Your task to perform on an android device: Check the news Image 0: 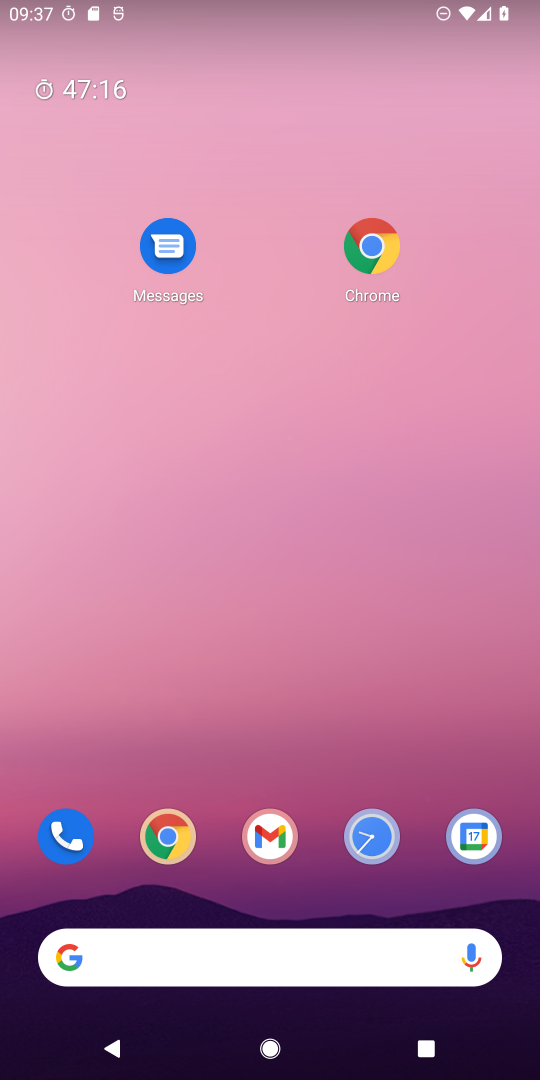
Step 0: click (173, 840)
Your task to perform on an android device: Check the news Image 1: 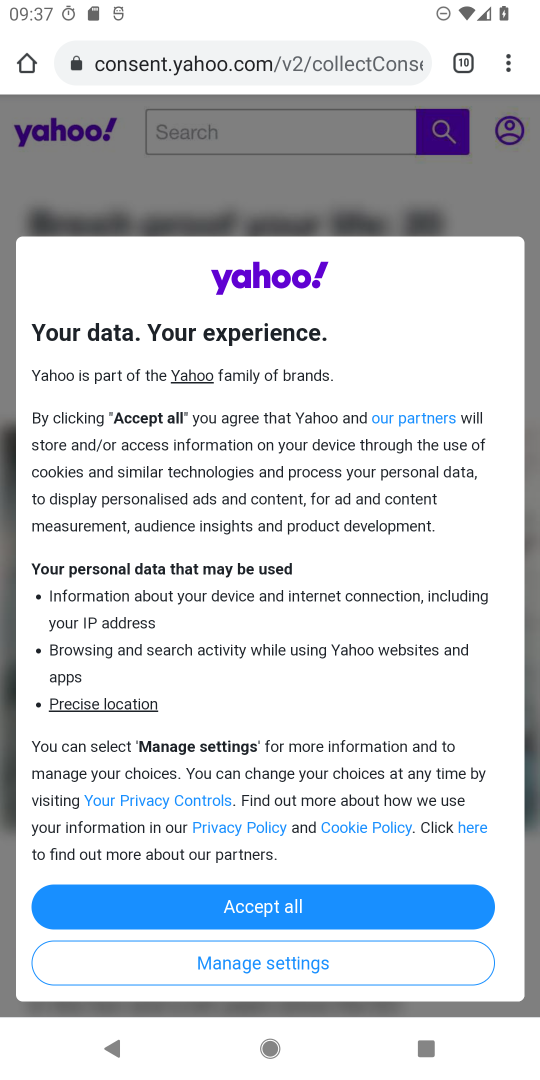
Step 1: click (514, 62)
Your task to perform on an android device: Check the news Image 2: 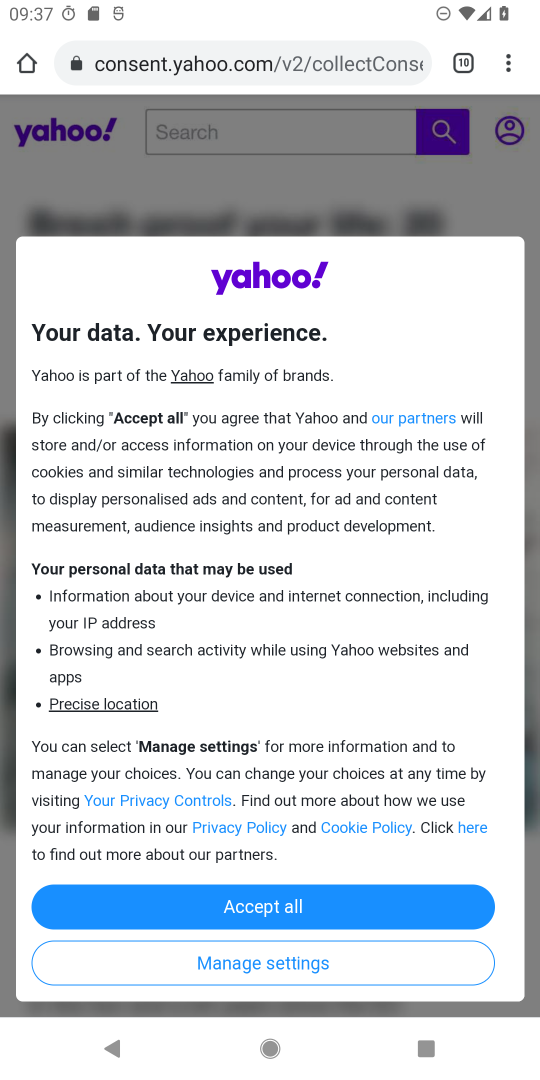
Step 2: click (496, 75)
Your task to perform on an android device: Check the news Image 3: 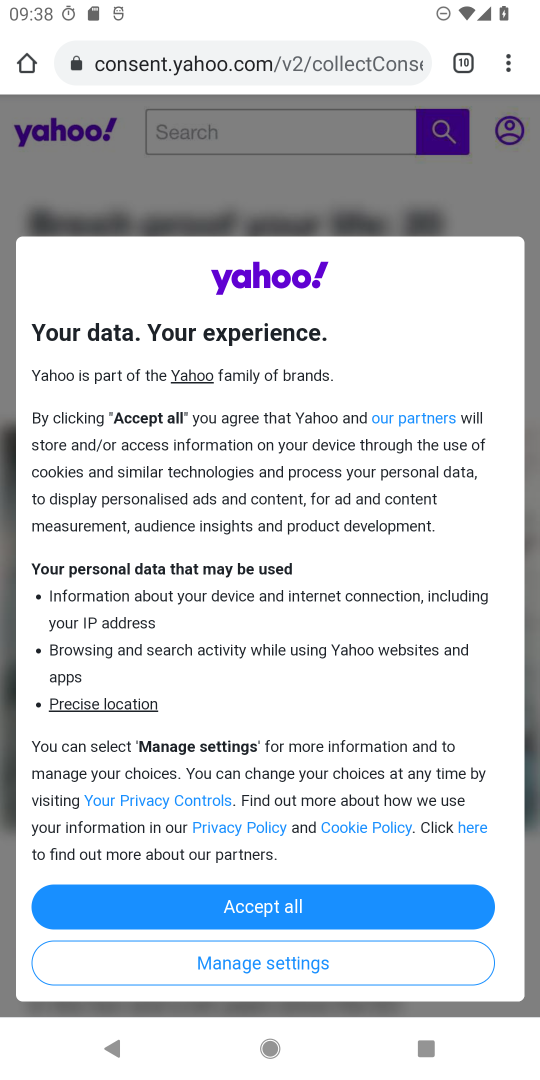
Step 3: click (514, 67)
Your task to perform on an android device: Check the news Image 4: 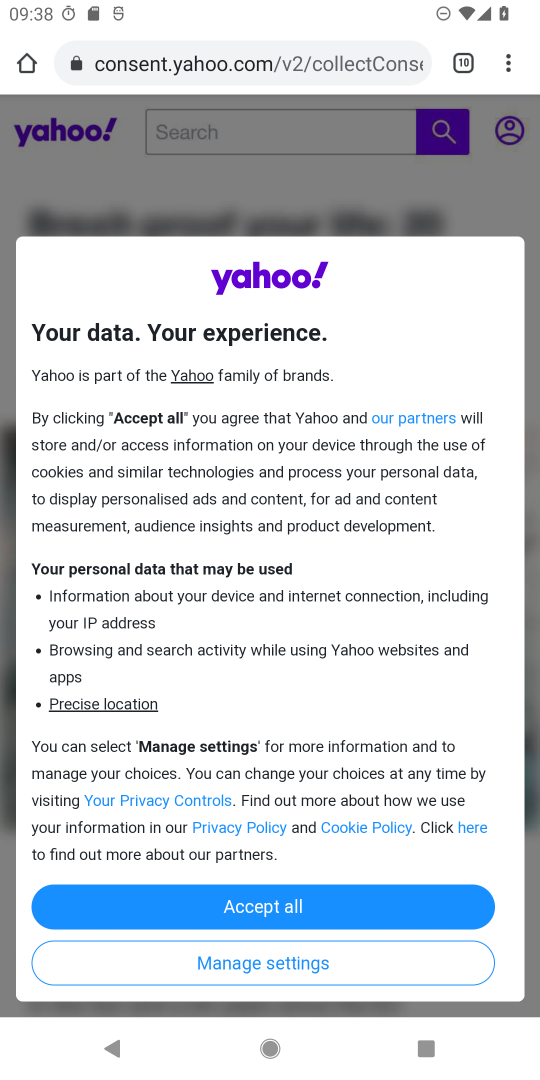
Step 4: click (514, 67)
Your task to perform on an android device: Check the news Image 5: 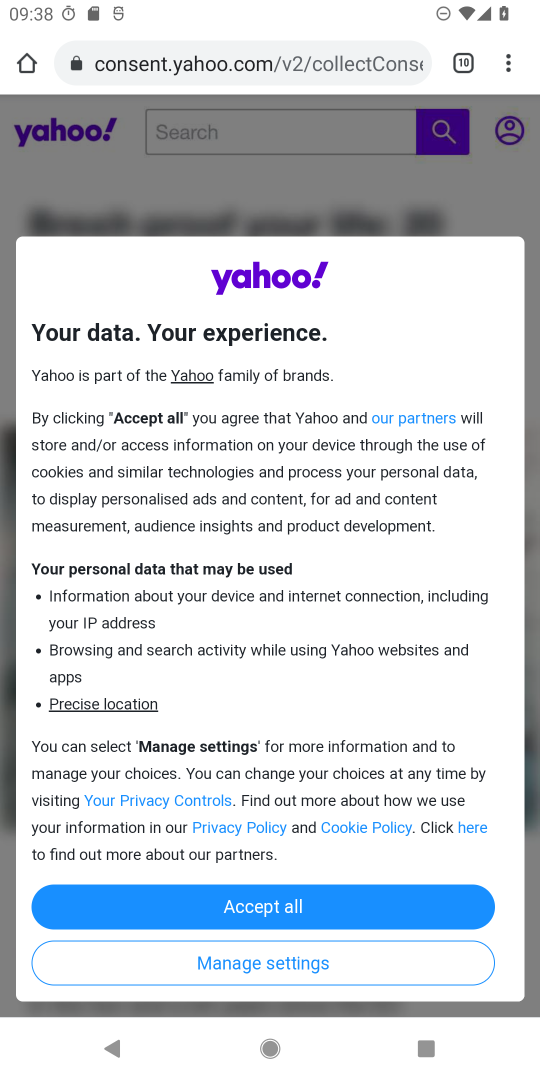
Step 5: click (498, 57)
Your task to perform on an android device: Check the news Image 6: 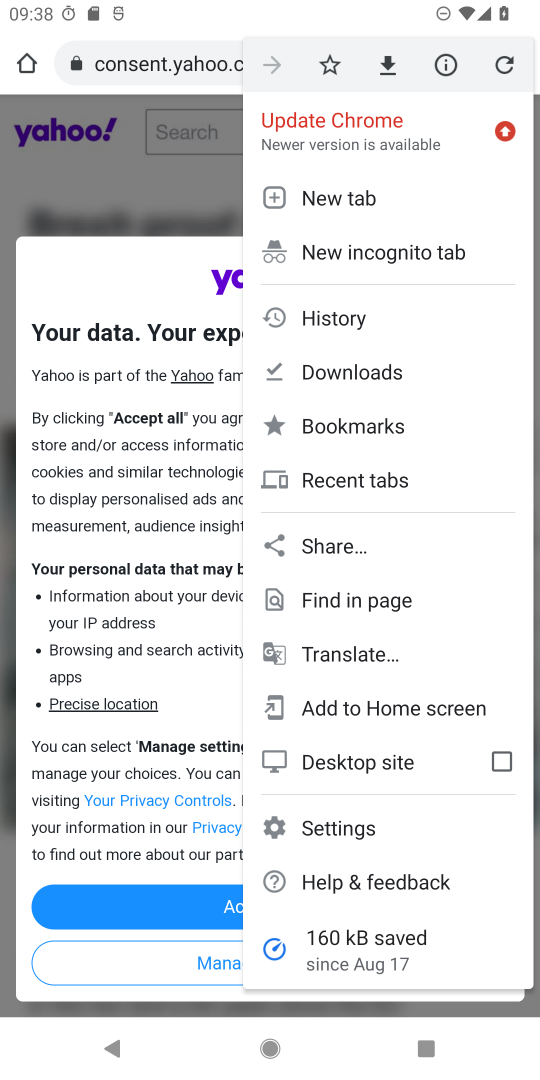
Step 6: click (337, 183)
Your task to perform on an android device: Check the news Image 7: 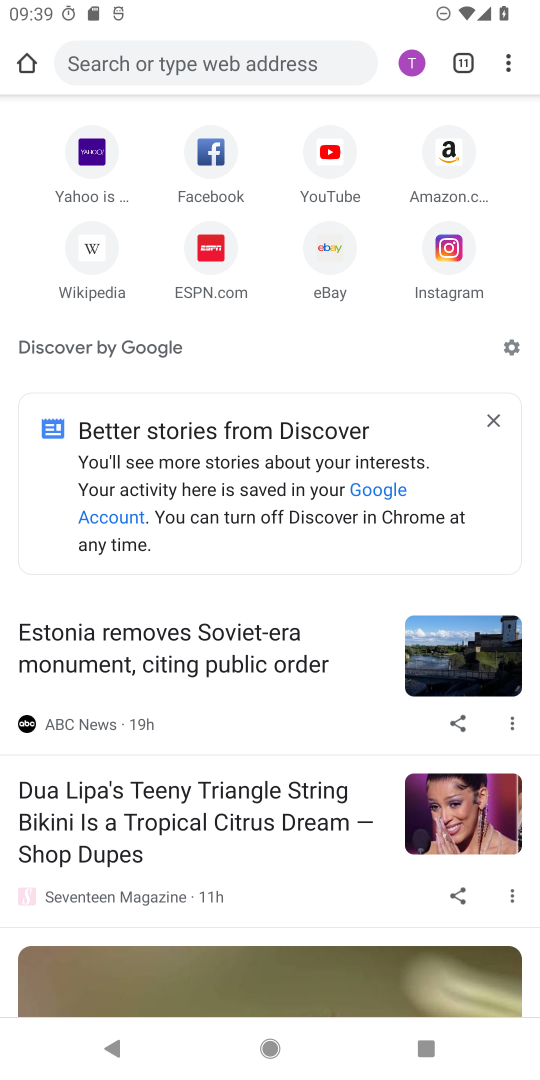
Step 7: click (201, 54)
Your task to perform on an android device: Check the news Image 8: 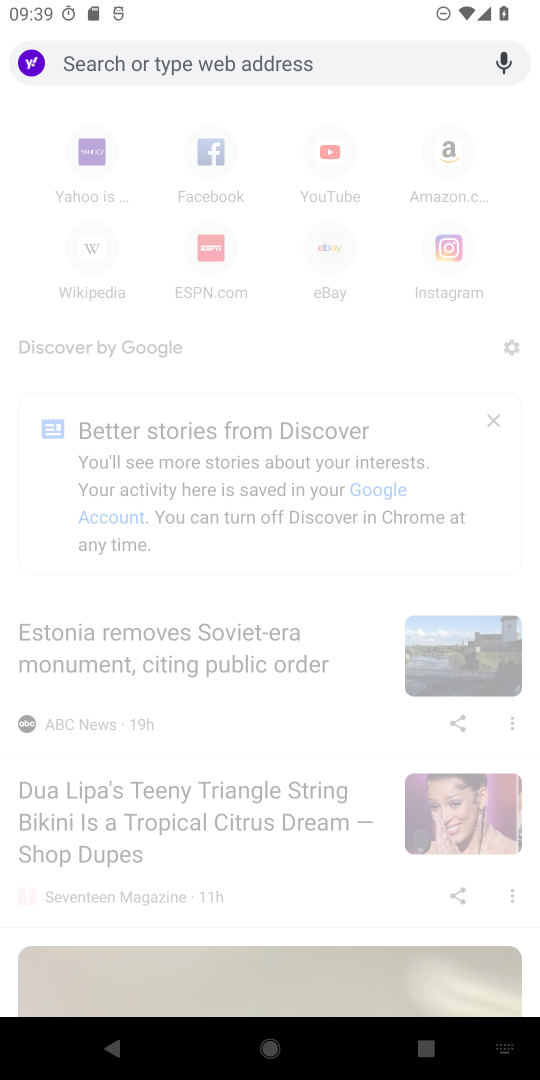
Step 8: type "Check the news "
Your task to perform on an android device: Check the news Image 9: 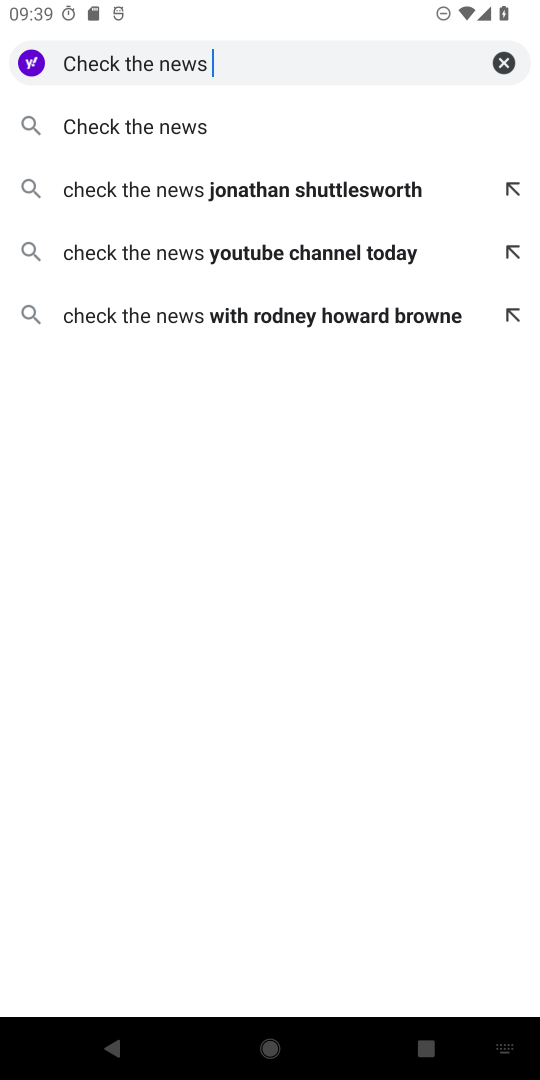
Step 9: click (107, 138)
Your task to perform on an android device: Check the news Image 10: 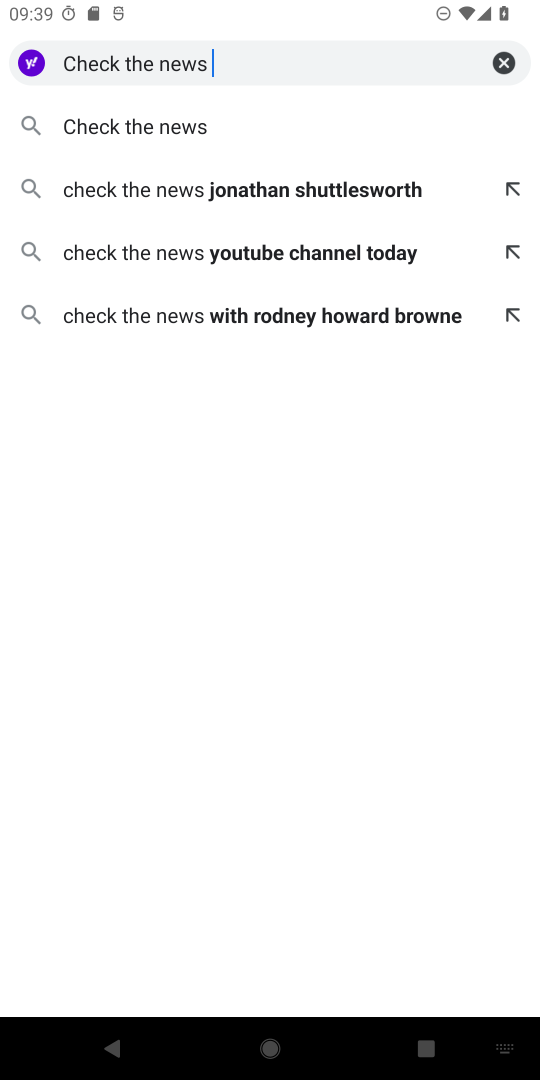
Step 10: click (106, 117)
Your task to perform on an android device: Check the news Image 11: 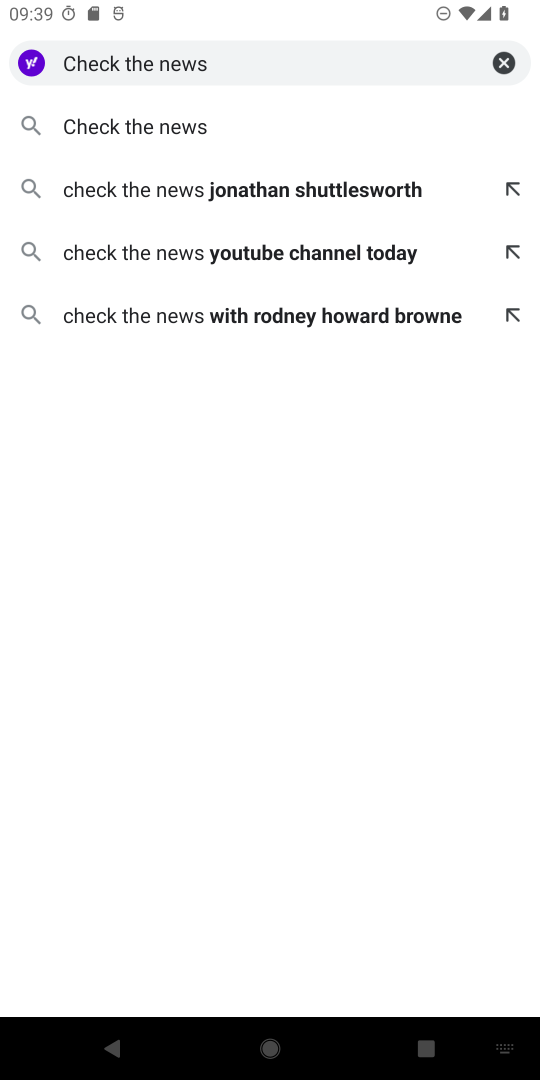
Step 11: click (106, 117)
Your task to perform on an android device: Check the news Image 12: 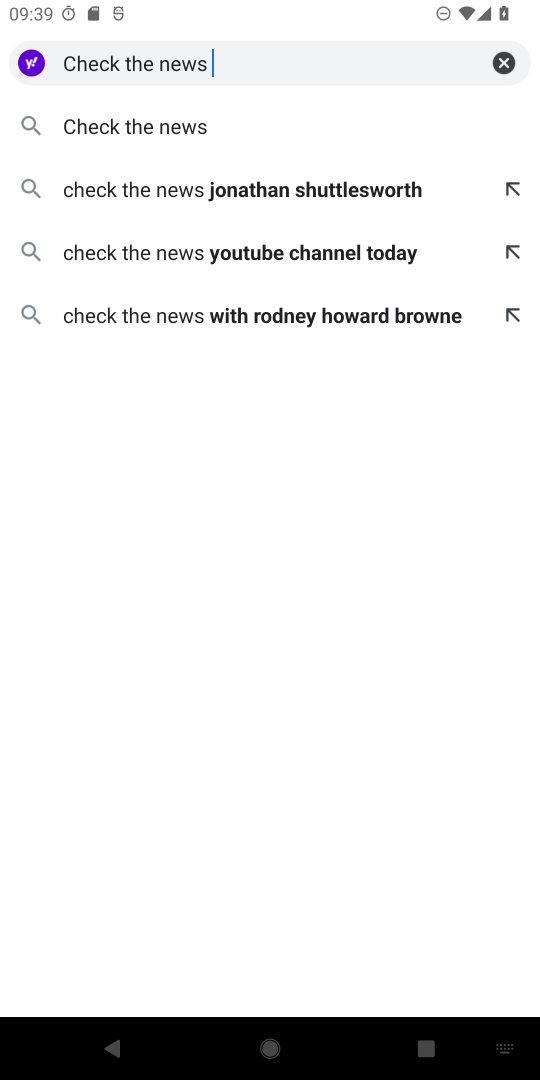
Step 12: click (101, 117)
Your task to perform on an android device: Check the news Image 13: 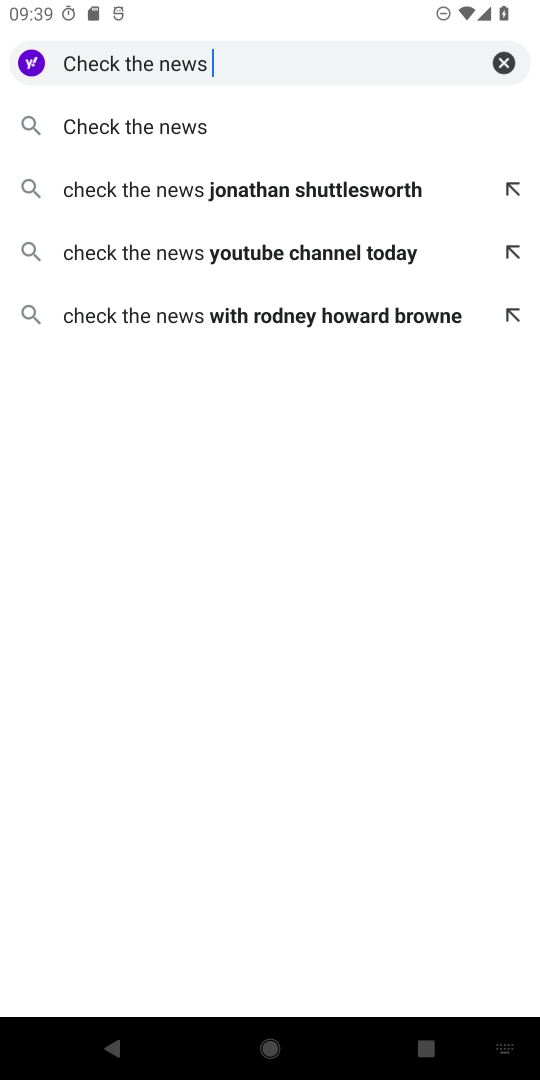
Step 13: click (101, 117)
Your task to perform on an android device: Check the news Image 14: 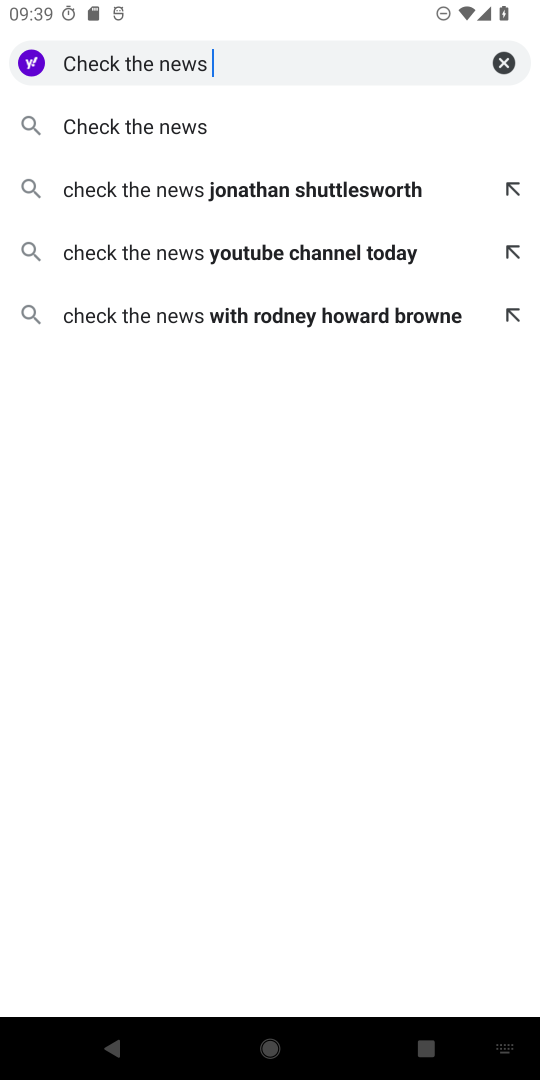
Step 14: click (112, 126)
Your task to perform on an android device: Check the news Image 15: 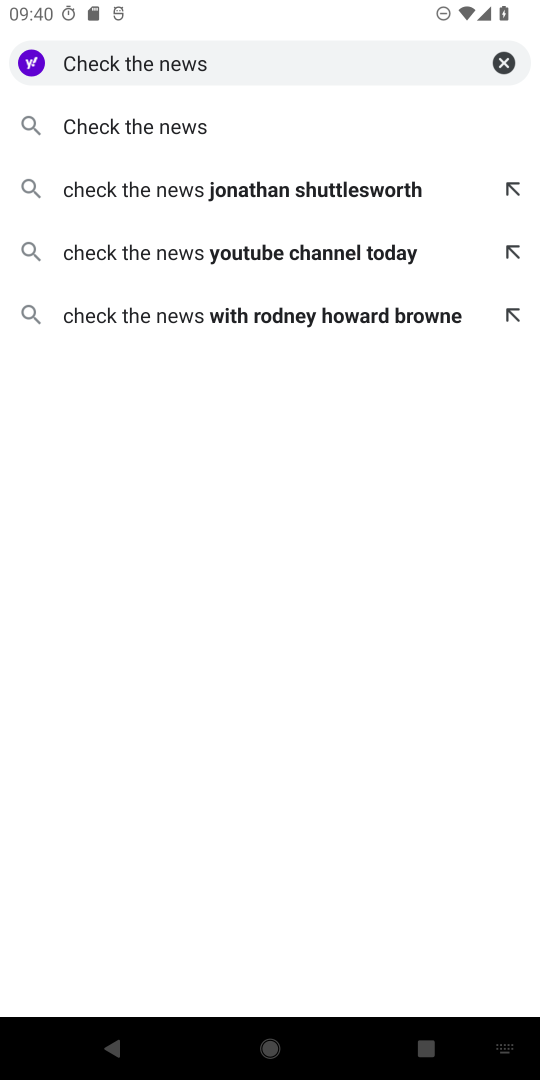
Step 15: click (144, 124)
Your task to perform on an android device: Check the news Image 16: 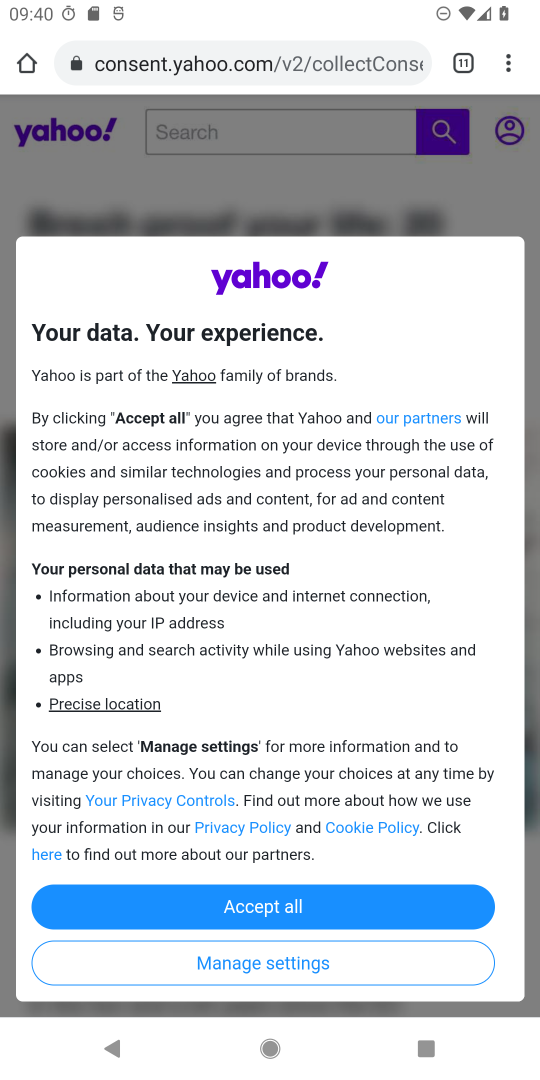
Step 16: task complete